Your task to perform on an android device: turn vacation reply on in the gmail app Image 0: 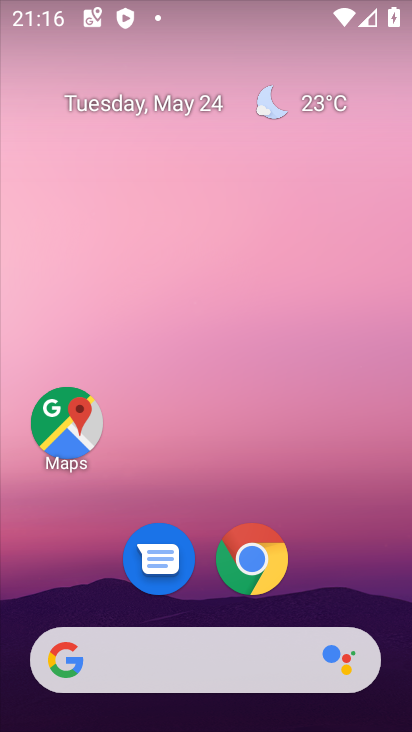
Step 0: drag from (346, 516) to (334, 98)
Your task to perform on an android device: turn vacation reply on in the gmail app Image 1: 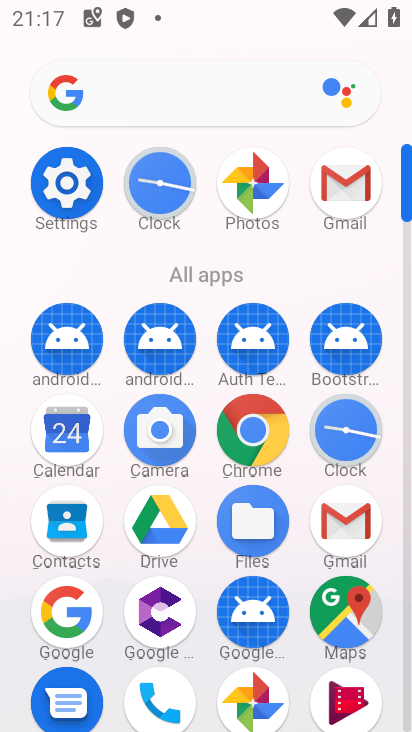
Step 1: click (353, 200)
Your task to perform on an android device: turn vacation reply on in the gmail app Image 2: 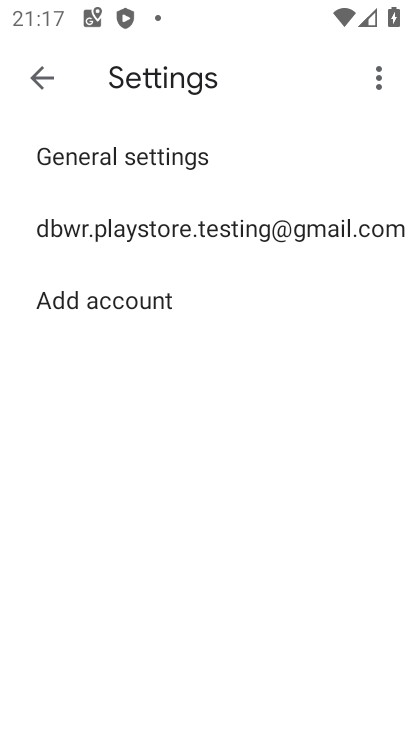
Step 2: click (153, 216)
Your task to perform on an android device: turn vacation reply on in the gmail app Image 3: 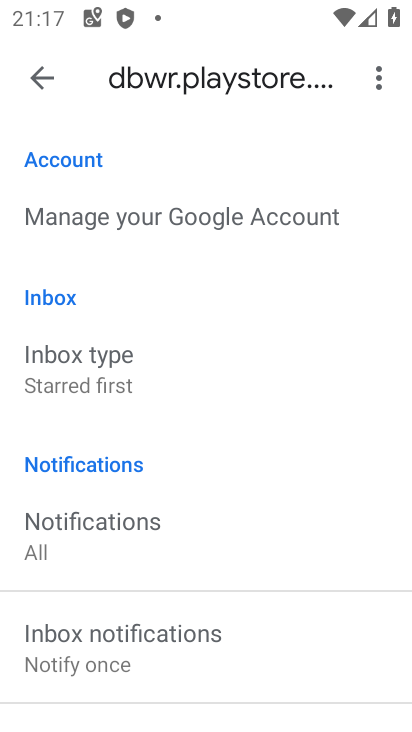
Step 3: drag from (252, 580) to (313, 191)
Your task to perform on an android device: turn vacation reply on in the gmail app Image 4: 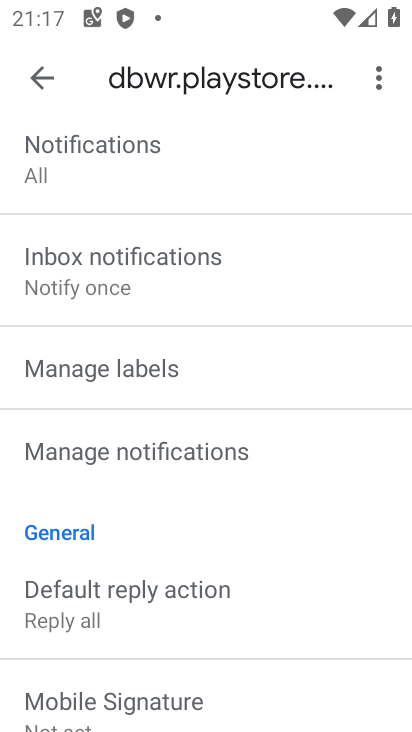
Step 4: drag from (253, 529) to (285, 207)
Your task to perform on an android device: turn vacation reply on in the gmail app Image 5: 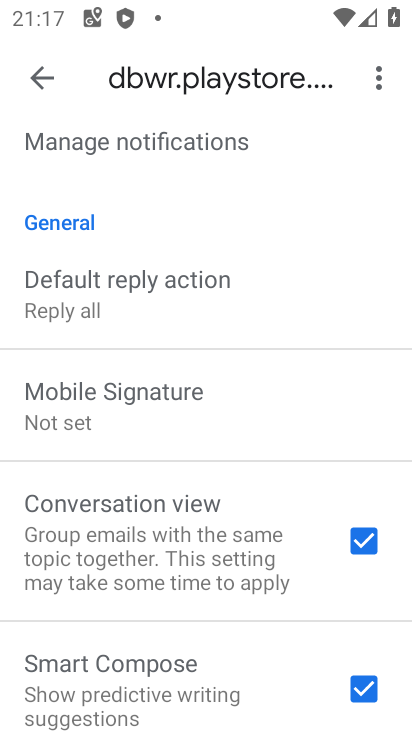
Step 5: drag from (193, 587) to (257, 235)
Your task to perform on an android device: turn vacation reply on in the gmail app Image 6: 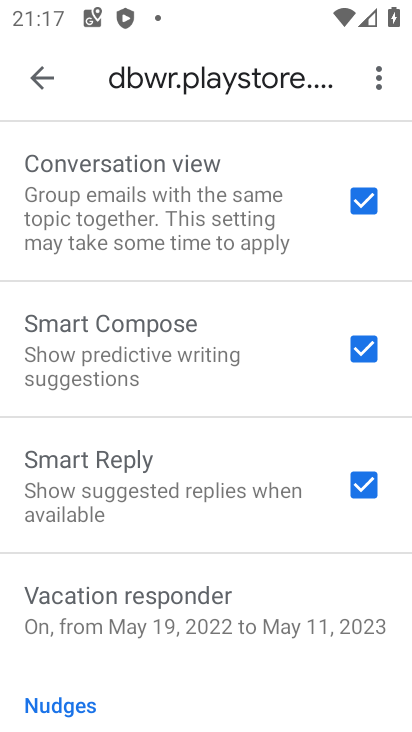
Step 6: drag from (212, 508) to (244, 233)
Your task to perform on an android device: turn vacation reply on in the gmail app Image 7: 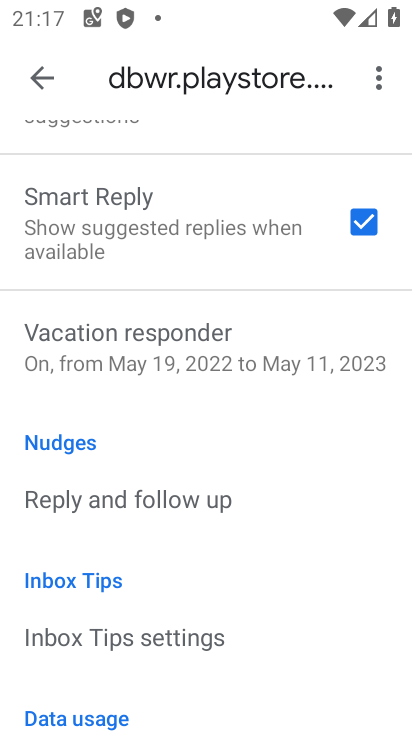
Step 7: click (212, 375)
Your task to perform on an android device: turn vacation reply on in the gmail app Image 8: 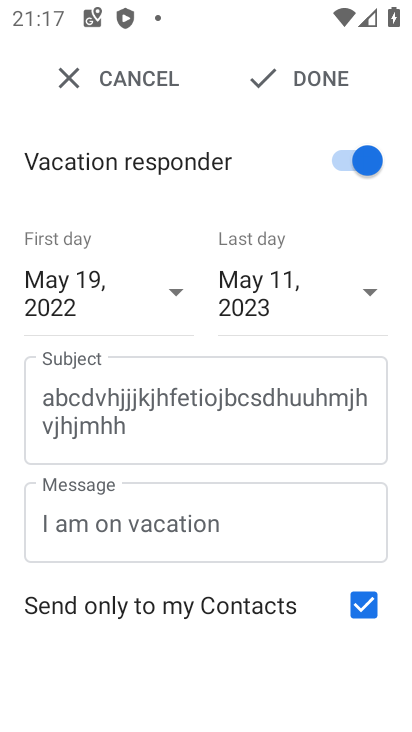
Step 8: task complete